Your task to perform on an android device: read, delete, or share a saved page in the chrome app Image 0: 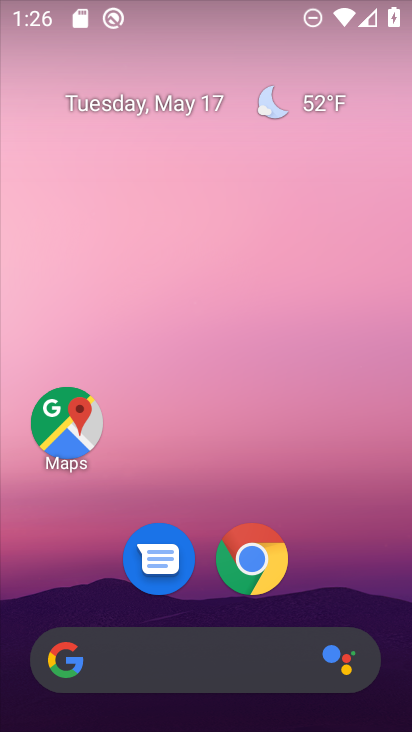
Step 0: click (255, 559)
Your task to perform on an android device: read, delete, or share a saved page in the chrome app Image 1: 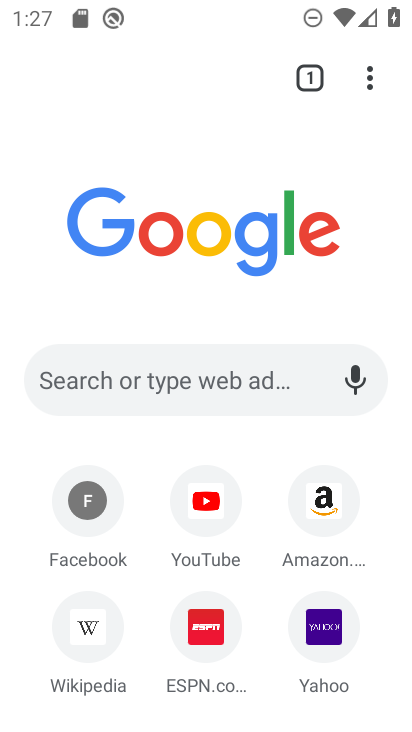
Step 1: click (372, 79)
Your task to perform on an android device: read, delete, or share a saved page in the chrome app Image 2: 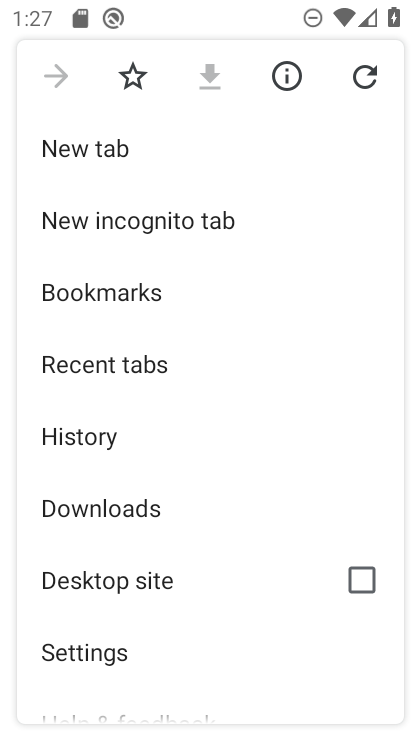
Step 2: click (125, 511)
Your task to perform on an android device: read, delete, or share a saved page in the chrome app Image 3: 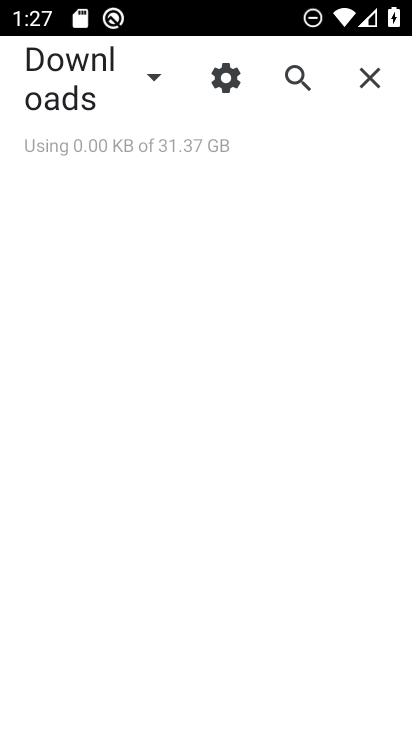
Step 3: task complete